Your task to perform on an android device: Search for the ikea billy bookcase Image 0: 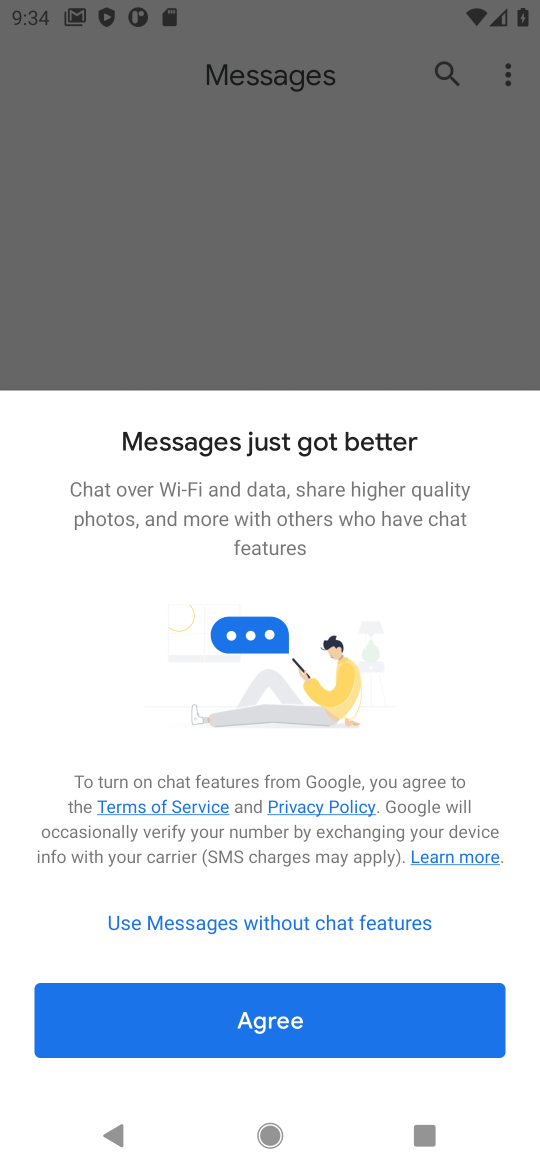
Step 0: press home button
Your task to perform on an android device: Search for the ikea billy bookcase Image 1: 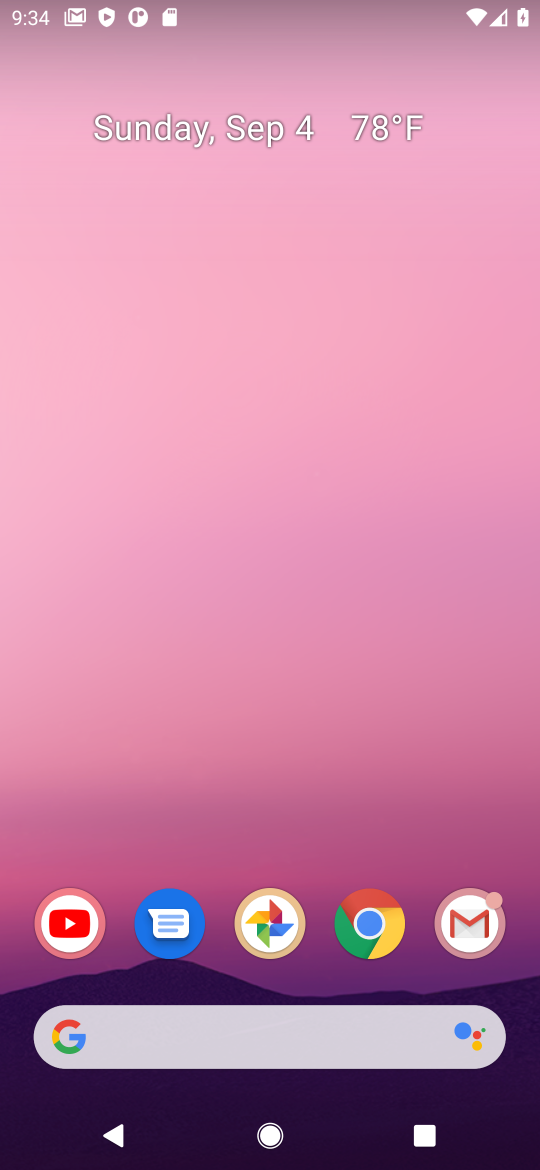
Step 1: click (131, 1045)
Your task to perform on an android device: Search for the ikea billy bookcase Image 2: 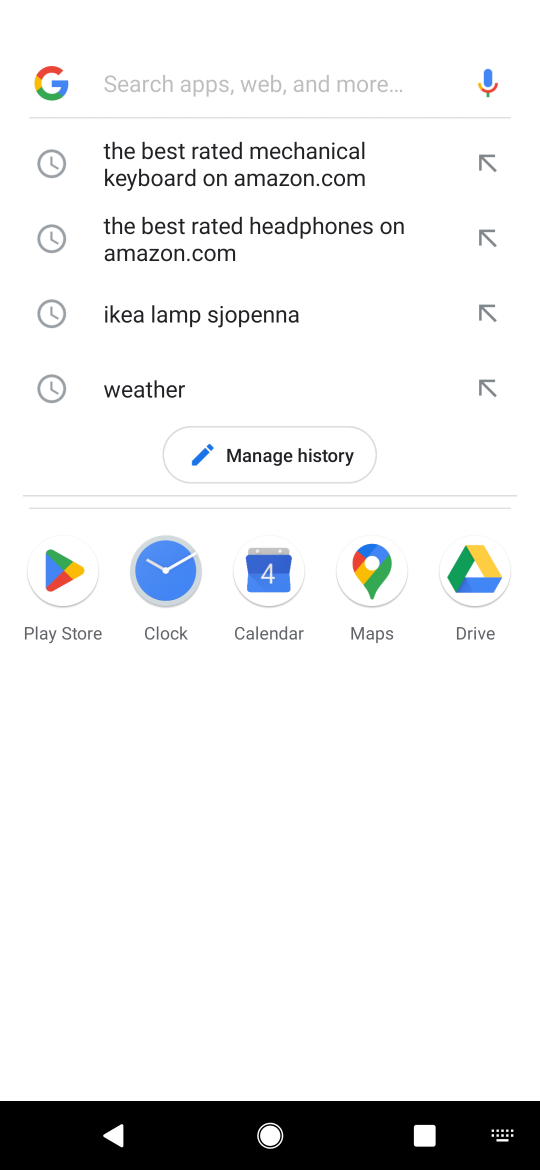
Step 2: type "the ikea billy bookcase"
Your task to perform on an android device: Search for the ikea billy bookcase Image 3: 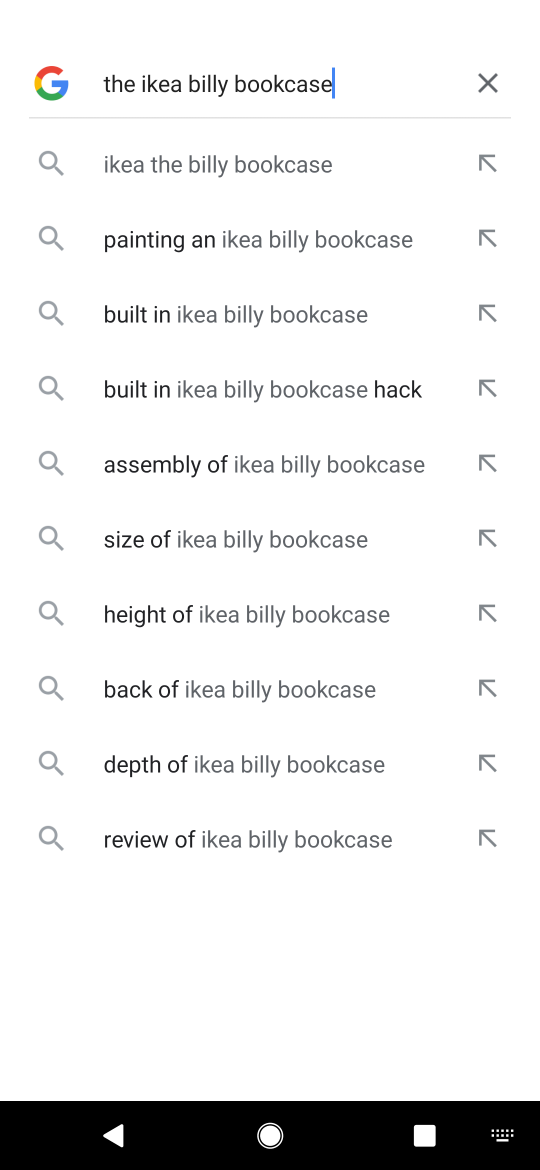
Step 3: click (223, 152)
Your task to perform on an android device: Search for the ikea billy bookcase Image 4: 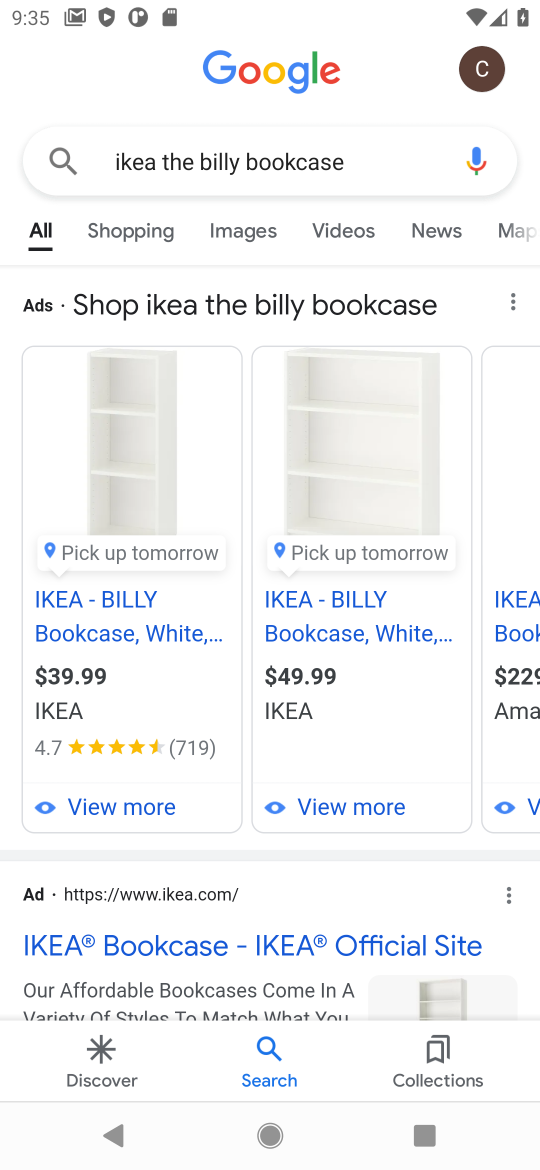
Step 4: task complete